Your task to perform on an android device: Go to Reddit.com Image 0: 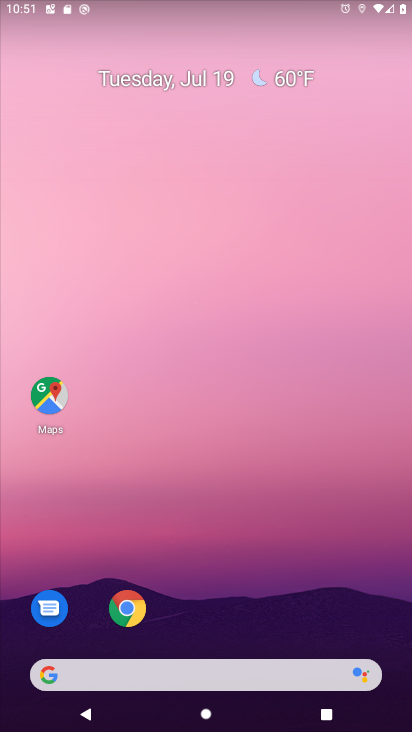
Step 0: click (117, 623)
Your task to perform on an android device: Go to Reddit.com Image 1: 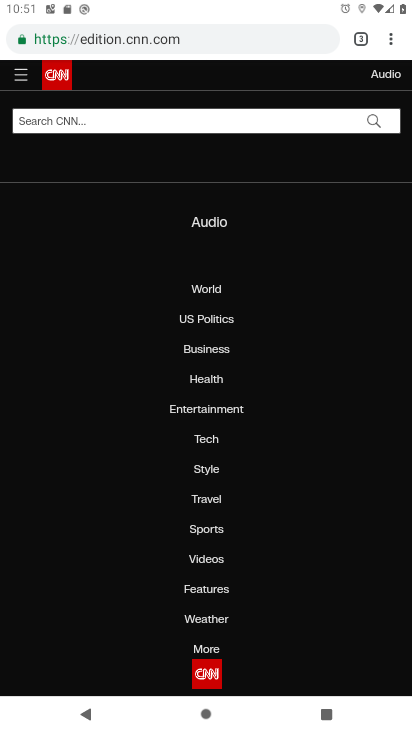
Step 1: click (363, 29)
Your task to perform on an android device: Go to Reddit.com Image 2: 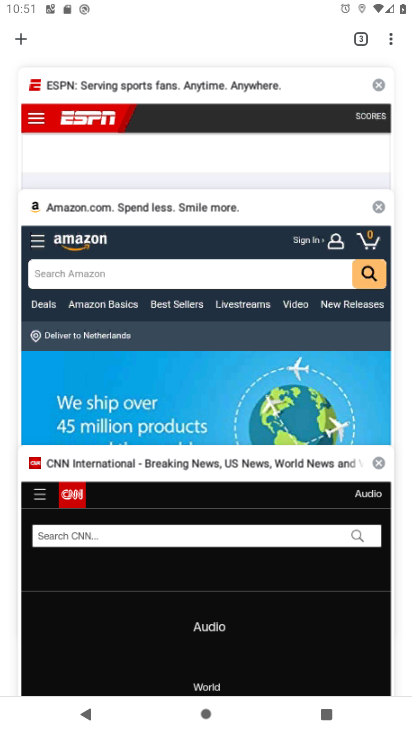
Step 2: click (20, 33)
Your task to perform on an android device: Go to Reddit.com Image 3: 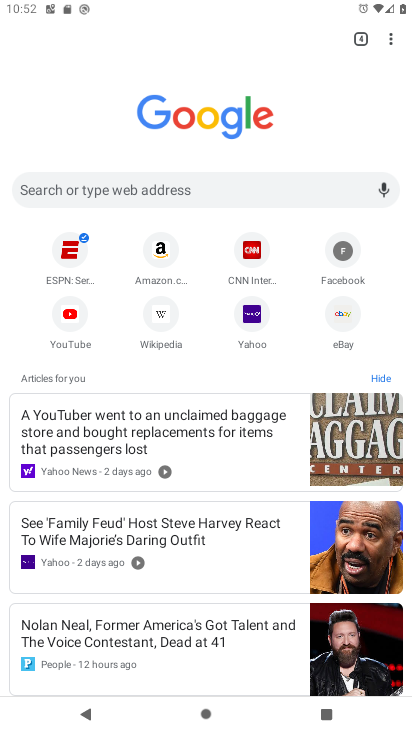
Step 3: click (134, 194)
Your task to perform on an android device: Go to Reddit.com Image 4: 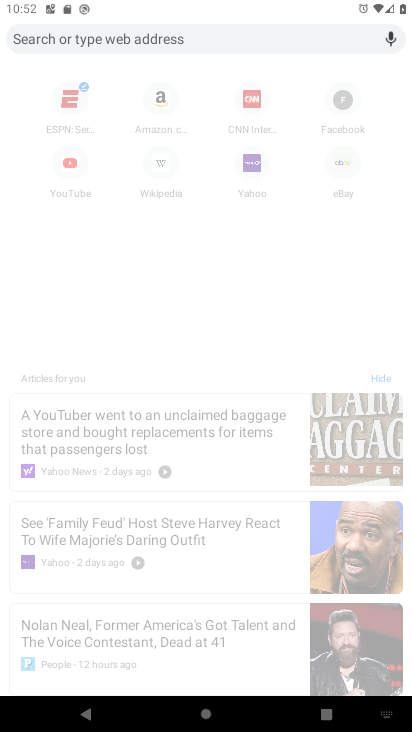
Step 4: type "reddit"
Your task to perform on an android device: Go to Reddit.com Image 5: 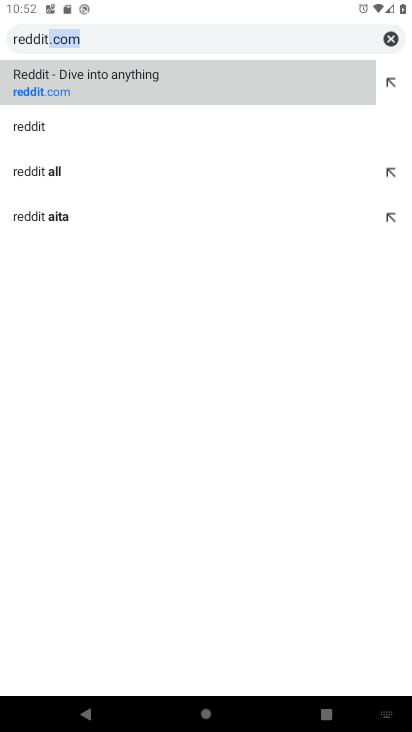
Step 5: click (48, 92)
Your task to perform on an android device: Go to Reddit.com Image 6: 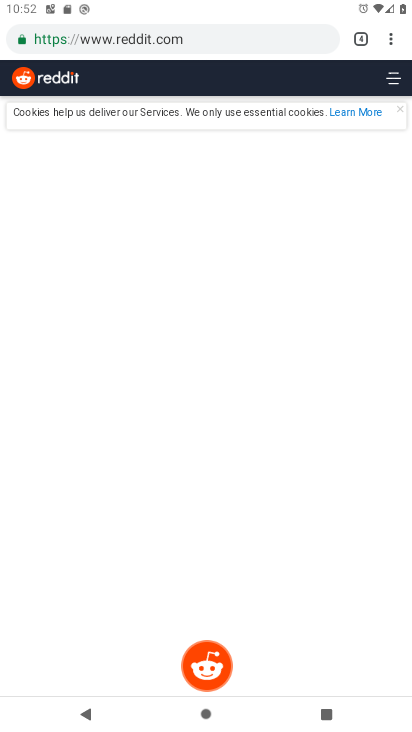
Step 6: task complete